Your task to perform on an android device: change keyboard looks Image 0: 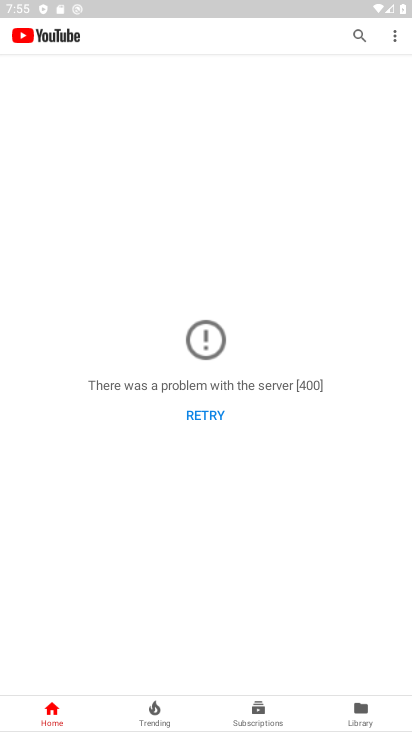
Step 0: press home button
Your task to perform on an android device: change keyboard looks Image 1: 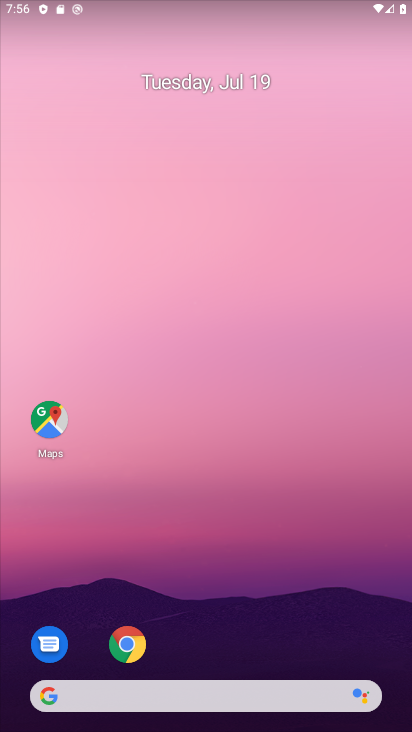
Step 1: drag from (285, 659) to (241, 106)
Your task to perform on an android device: change keyboard looks Image 2: 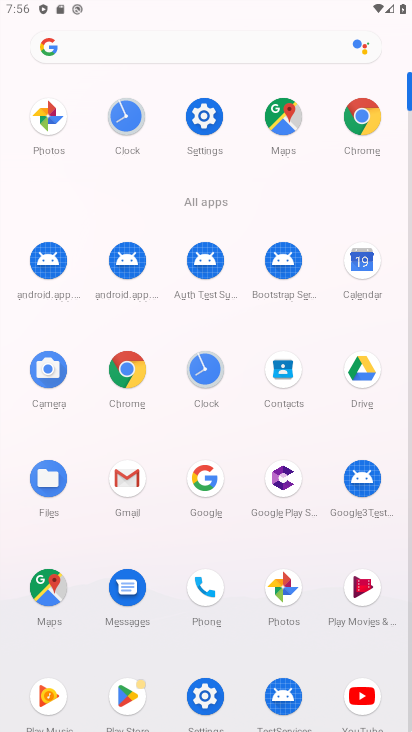
Step 2: click (206, 695)
Your task to perform on an android device: change keyboard looks Image 3: 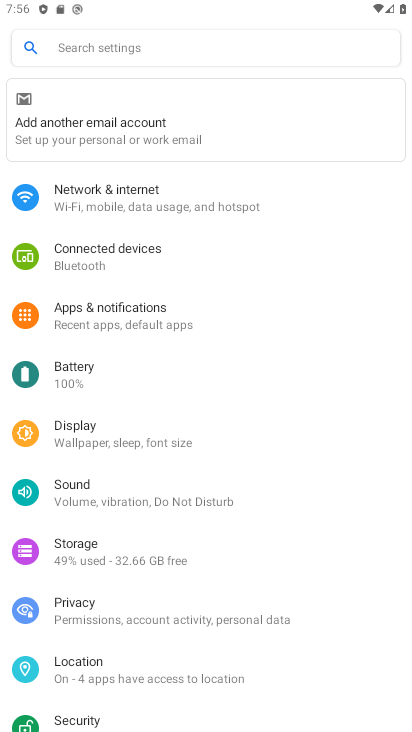
Step 3: drag from (169, 664) to (90, 114)
Your task to perform on an android device: change keyboard looks Image 4: 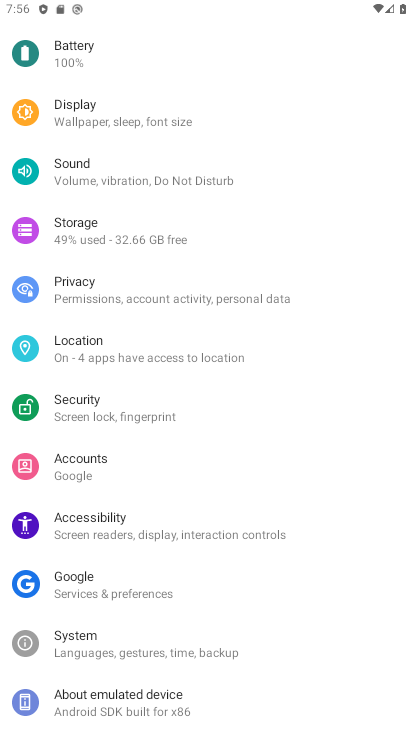
Step 4: click (117, 650)
Your task to perform on an android device: change keyboard looks Image 5: 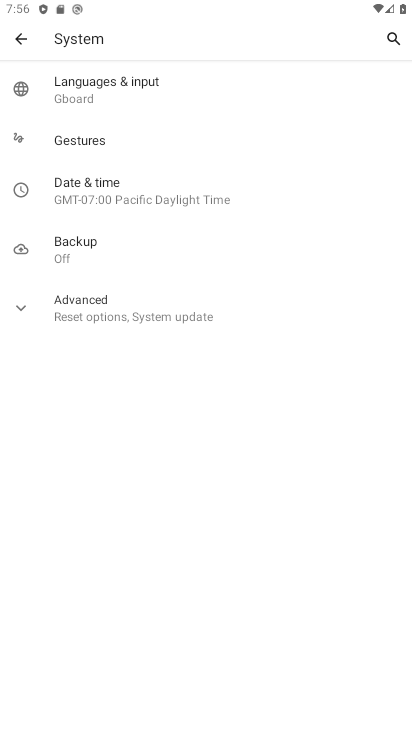
Step 5: click (168, 86)
Your task to perform on an android device: change keyboard looks Image 6: 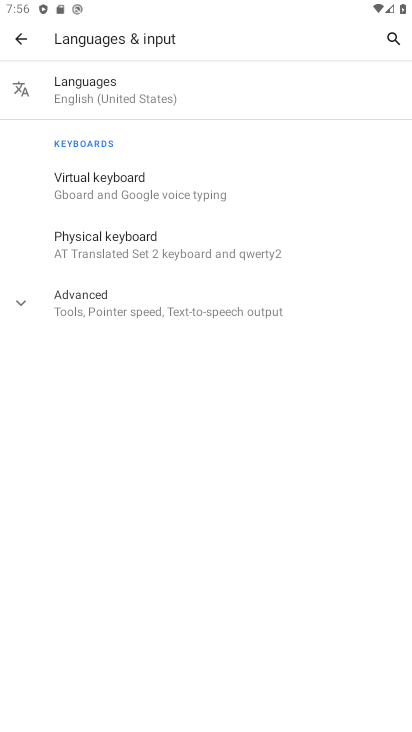
Step 6: click (158, 185)
Your task to perform on an android device: change keyboard looks Image 7: 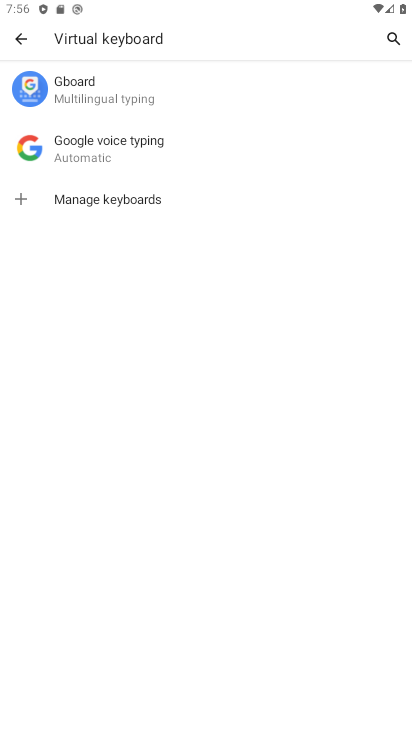
Step 7: click (120, 93)
Your task to perform on an android device: change keyboard looks Image 8: 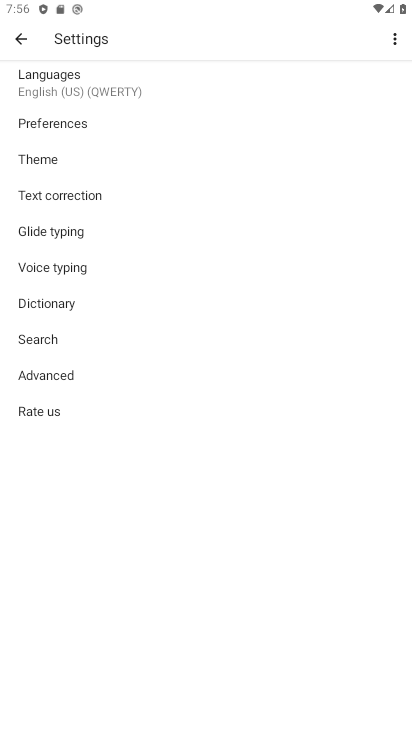
Step 8: click (88, 154)
Your task to perform on an android device: change keyboard looks Image 9: 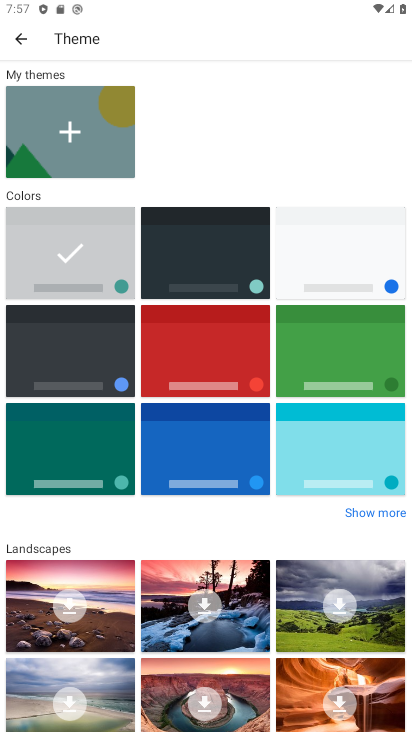
Step 9: click (126, 312)
Your task to perform on an android device: change keyboard looks Image 10: 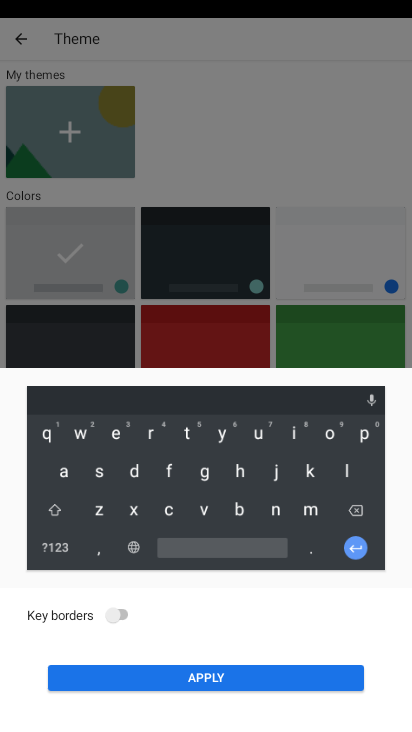
Step 10: click (253, 679)
Your task to perform on an android device: change keyboard looks Image 11: 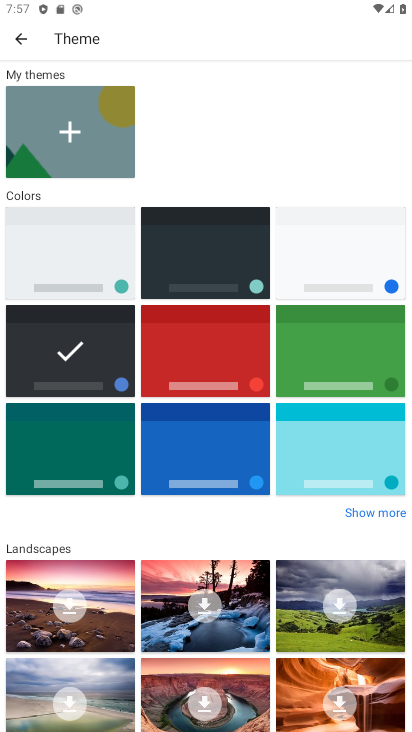
Step 11: task complete